Your task to perform on an android device: stop showing notifications on the lock screen Image 0: 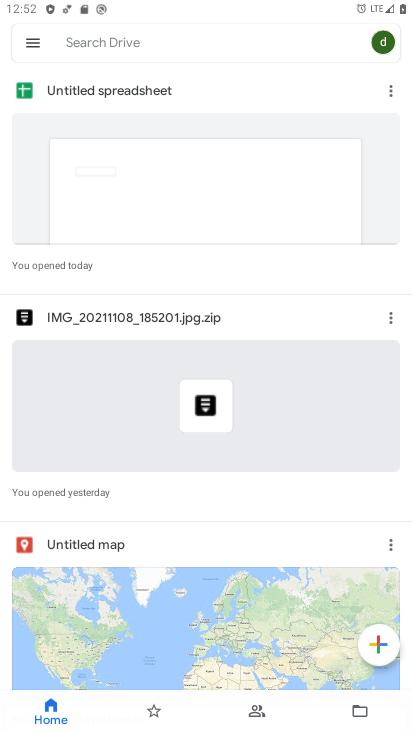
Step 0: press home button
Your task to perform on an android device: stop showing notifications on the lock screen Image 1: 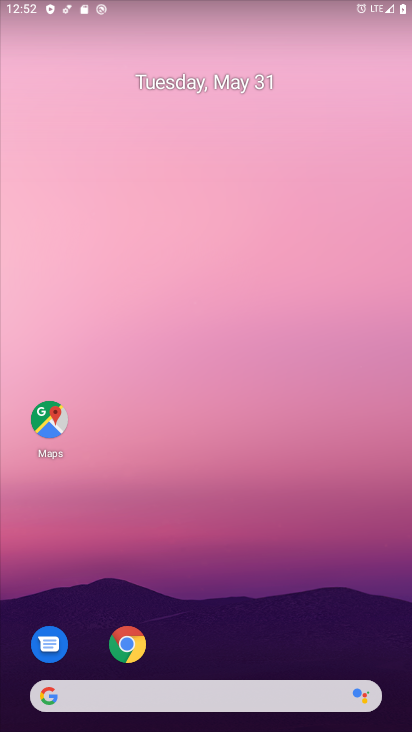
Step 1: drag from (213, 598) to (209, 215)
Your task to perform on an android device: stop showing notifications on the lock screen Image 2: 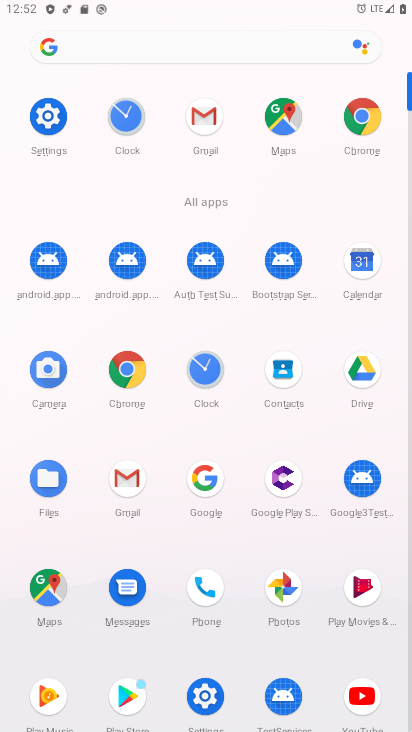
Step 2: click (47, 120)
Your task to perform on an android device: stop showing notifications on the lock screen Image 3: 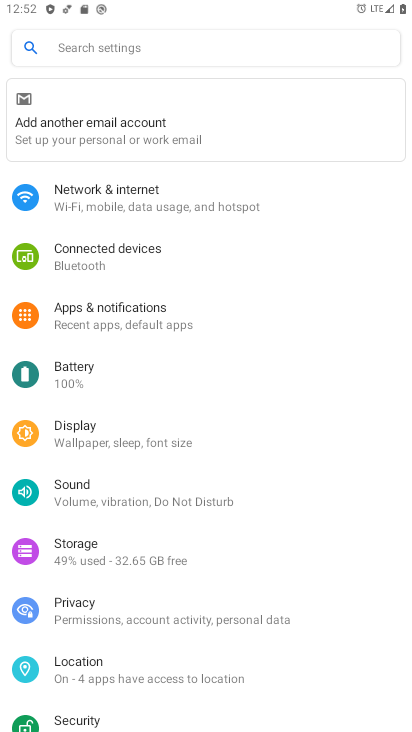
Step 3: click (122, 314)
Your task to perform on an android device: stop showing notifications on the lock screen Image 4: 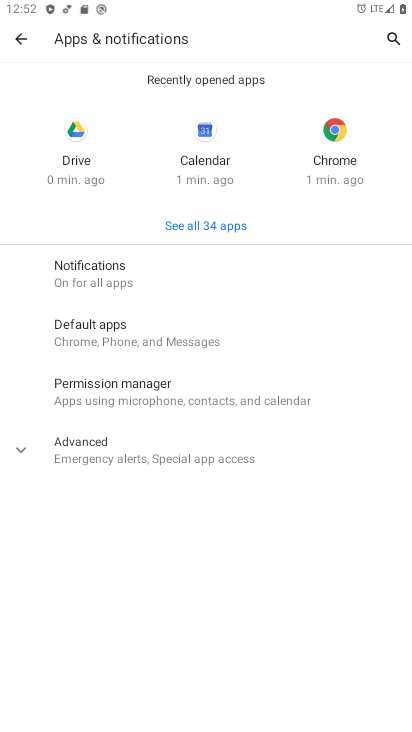
Step 4: click (100, 275)
Your task to perform on an android device: stop showing notifications on the lock screen Image 5: 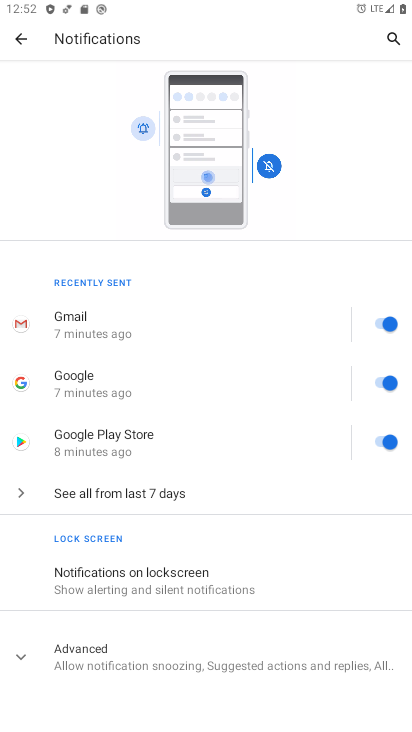
Step 5: click (151, 570)
Your task to perform on an android device: stop showing notifications on the lock screen Image 6: 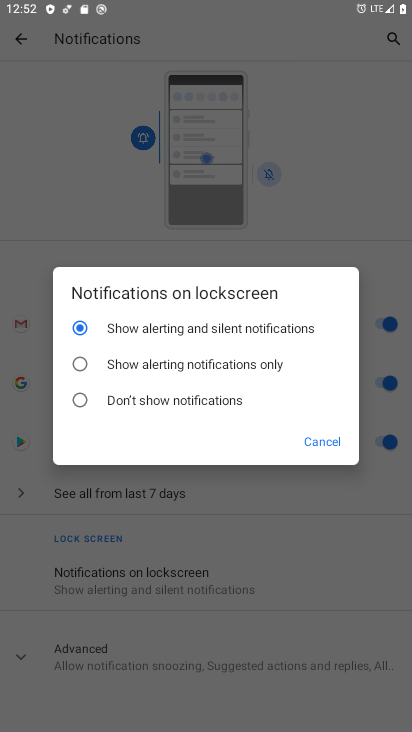
Step 6: click (93, 401)
Your task to perform on an android device: stop showing notifications on the lock screen Image 7: 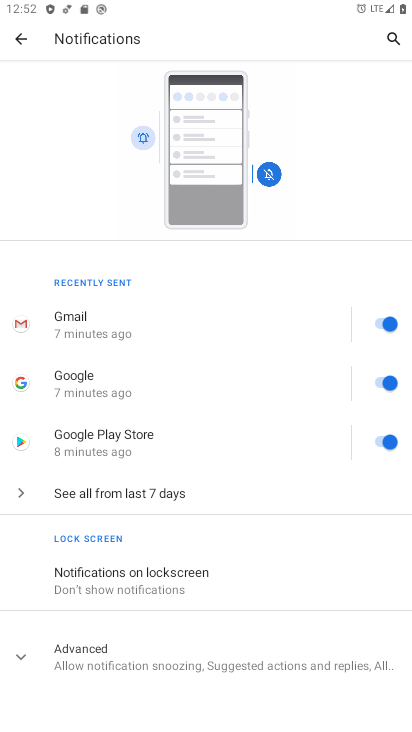
Step 7: task complete